Your task to perform on an android device: star an email in the gmail app Image 0: 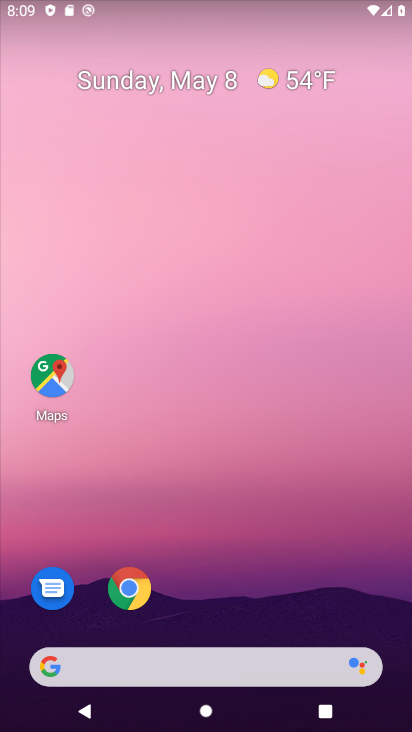
Step 0: drag from (41, 724) to (237, 150)
Your task to perform on an android device: star an email in the gmail app Image 1: 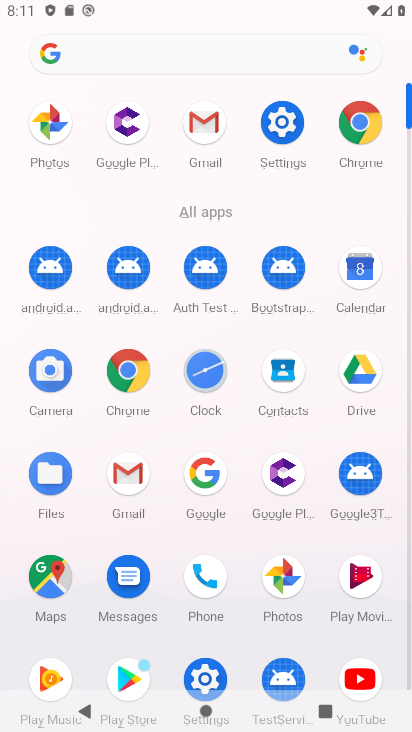
Step 1: click (134, 465)
Your task to perform on an android device: star an email in the gmail app Image 2: 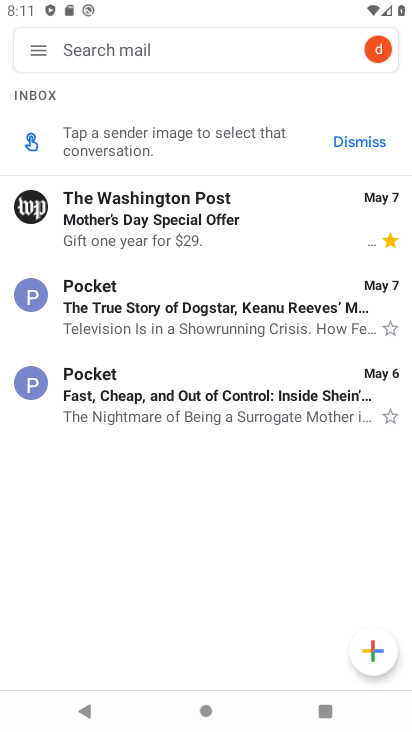
Step 2: click (46, 49)
Your task to perform on an android device: star an email in the gmail app Image 3: 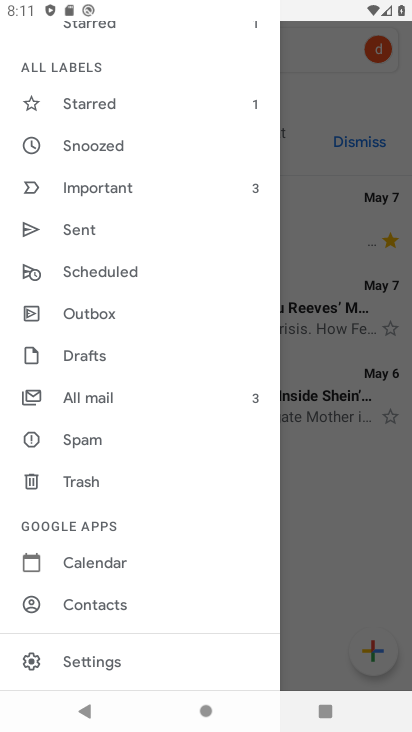
Step 3: drag from (144, 143) to (112, 413)
Your task to perform on an android device: star an email in the gmail app Image 4: 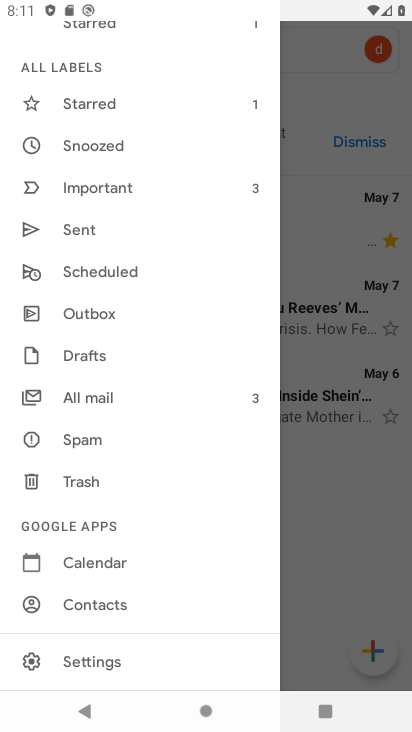
Step 4: click (336, 513)
Your task to perform on an android device: star an email in the gmail app Image 5: 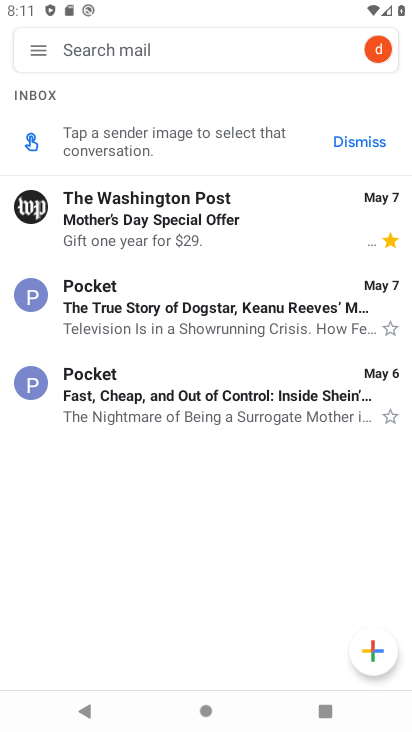
Step 5: click (312, 321)
Your task to perform on an android device: star an email in the gmail app Image 6: 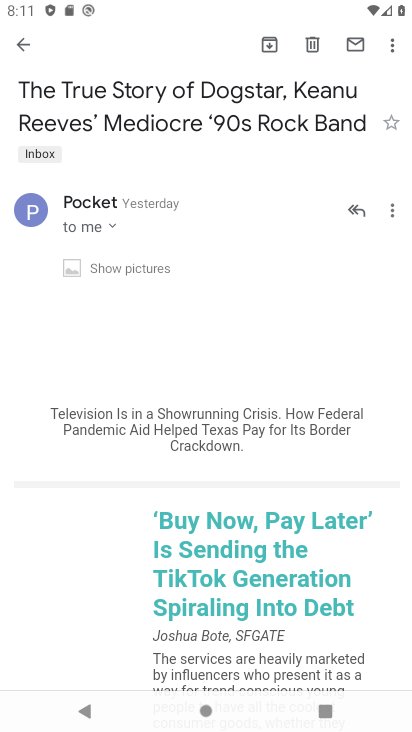
Step 6: click (385, 126)
Your task to perform on an android device: star an email in the gmail app Image 7: 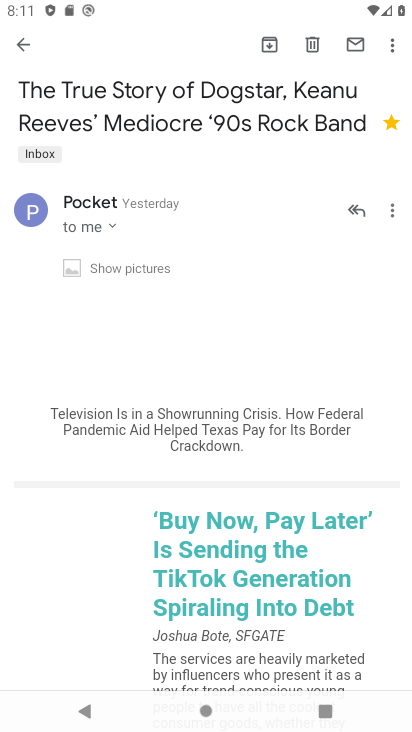
Step 7: task complete